Your task to perform on an android device: open sync settings in chrome Image 0: 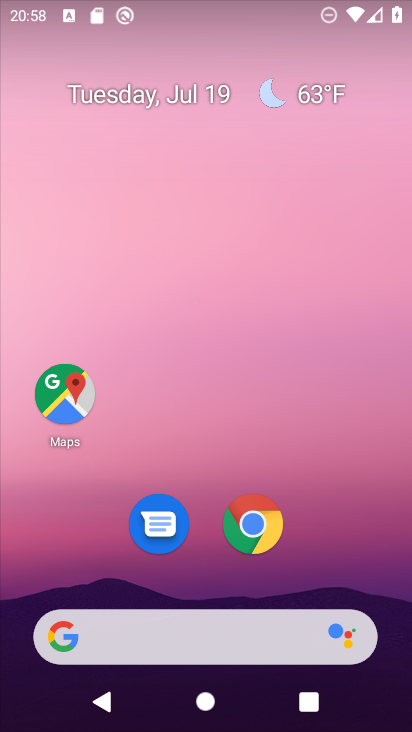
Step 0: click (246, 532)
Your task to perform on an android device: open sync settings in chrome Image 1: 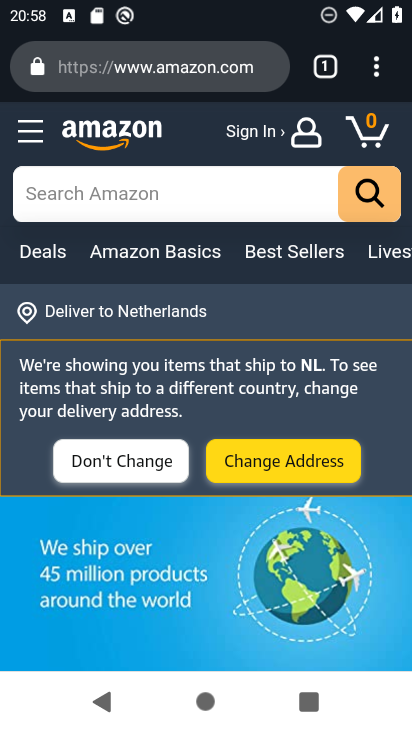
Step 1: click (379, 74)
Your task to perform on an android device: open sync settings in chrome Image 2: 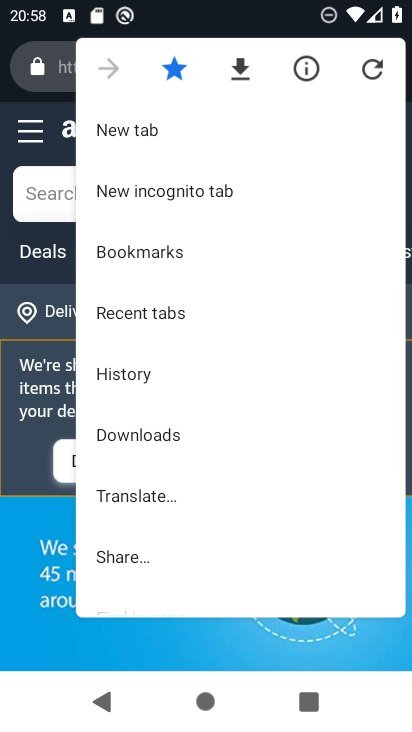
Step 2: drag from (273, 464) to (284, 158)
Your task to perform on an android device: open sync settings in chrome Image 3: 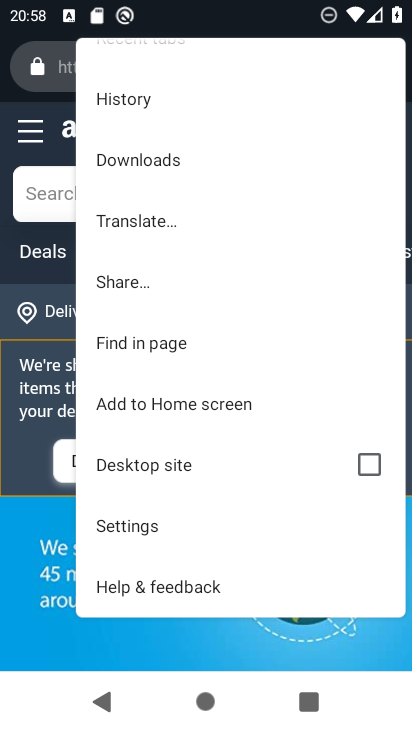
Step 3: click (149, 519)
Your task to perform on an android device: open sync settings in chrome Image 4: 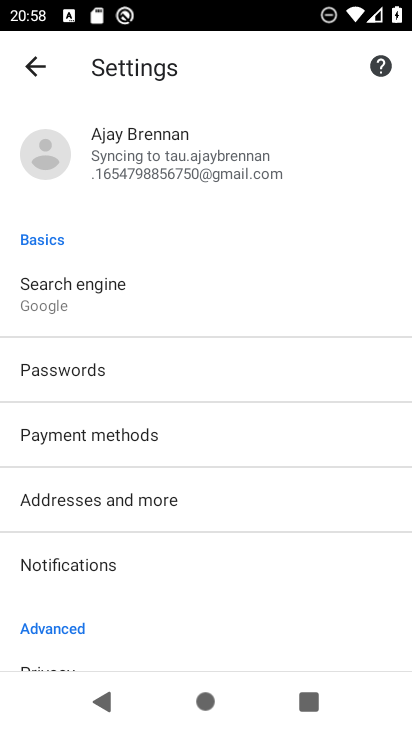
Step 4: click (228, 154)
Your task to perform on an android device: open sync settings in chrome Image 5: 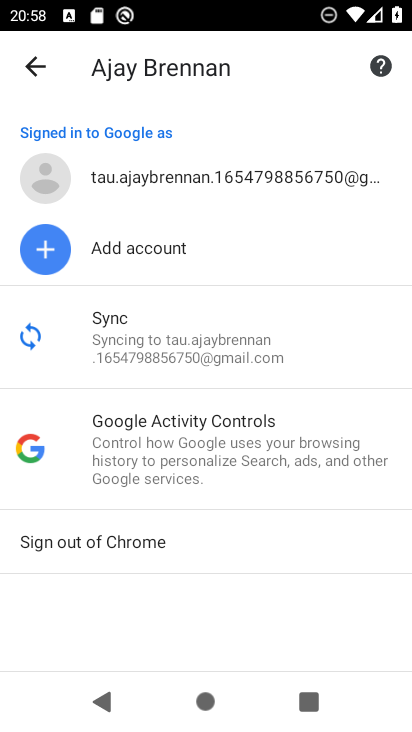
Step 5: click (211, 344)
Your task to perform on an android device: open sync settings in chrome Image 6: 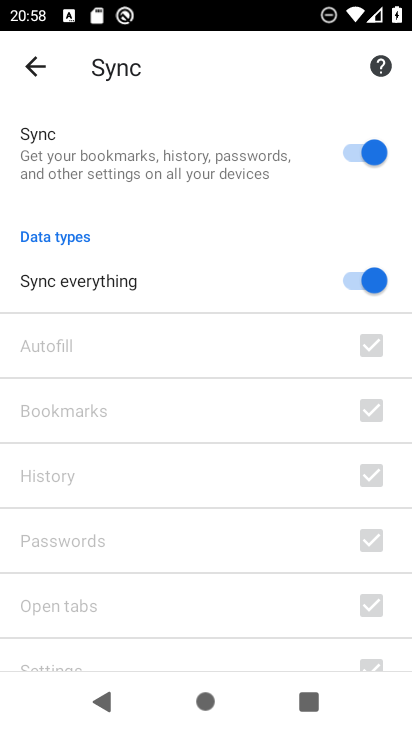
Step 6: task complete